Your task to perform on an android device: delete browsing data in the chrome app Image 0: 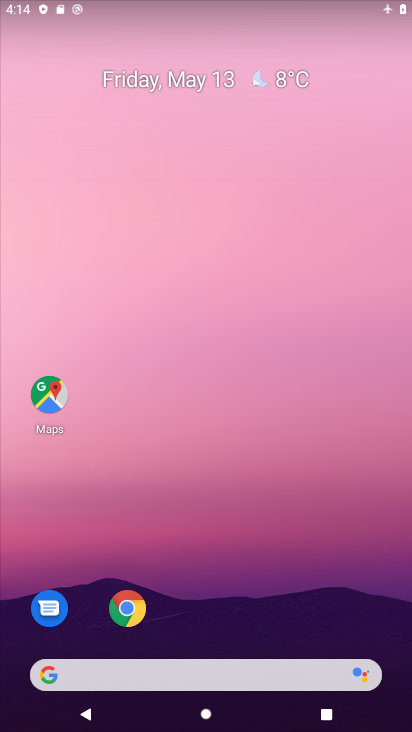
Step 0: click (126, 608)
Your task to perform on an android device: delete browsing data in the chrome app Image 1: 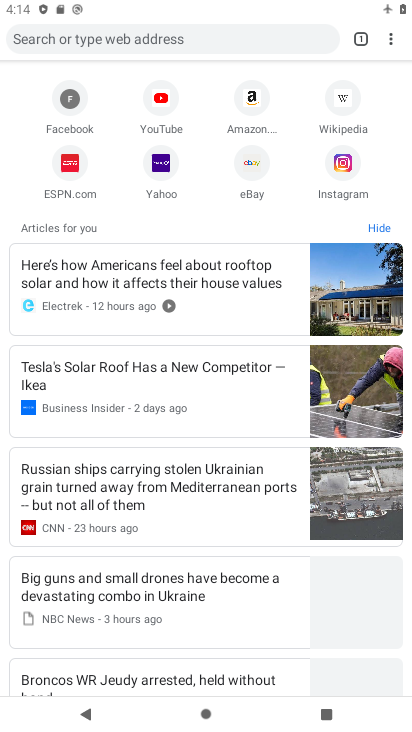
Step 1: click (390, 41)
Your task to perform on an android device: delete browsing data in the chrome app Image 2: 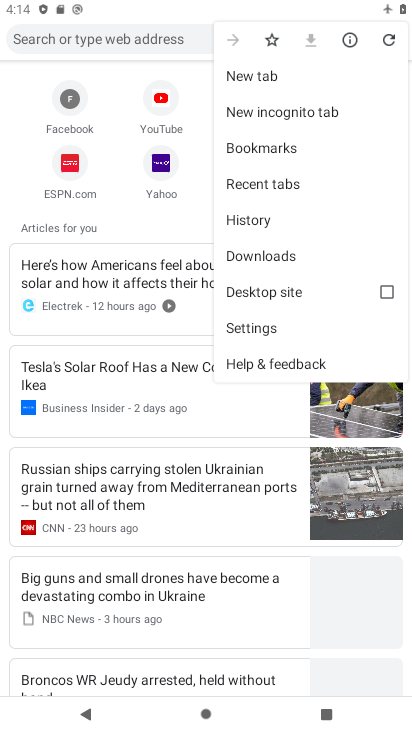
Step 2: click (259, 326)
Your task to perform on an android device: delete browsing data in the chrome app Image 3: 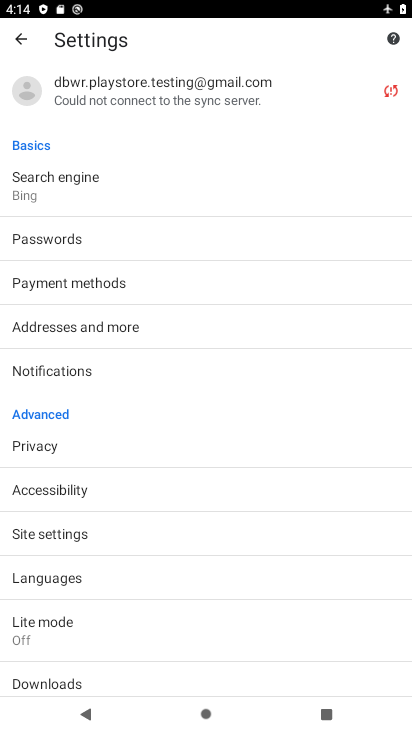
Step 3: click (45, 444)
Your task to perform on an android device: delete browsing data in the chrome app Image 4: 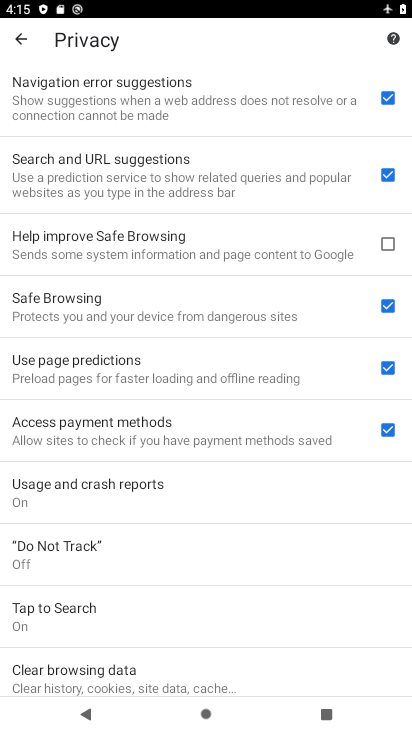
Step 4: drag from (161, 608) to (171, 537)
Your task to perform on an android device: delete browsing data in the chrome app Image 5: 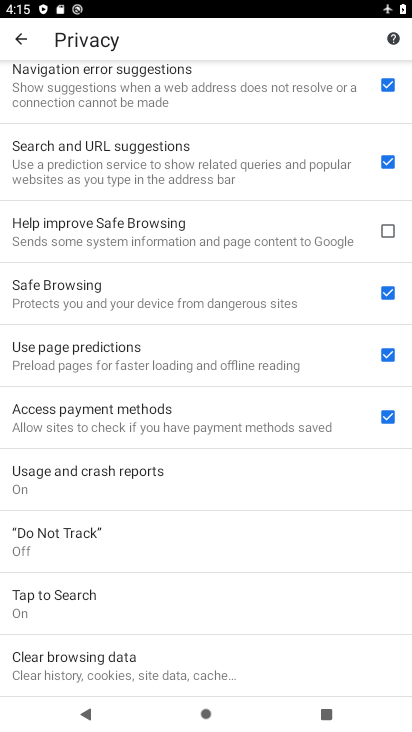
Step 5: click (73, 660)
Your task to perform on an android device: delete browsing data in the chrome app Image 6: 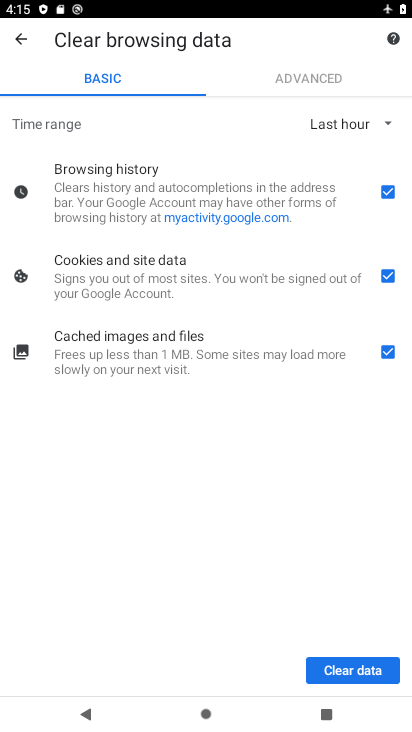
Step 6: click (353, 674)
Your task to perform on an android device: delete browsing data in the chrome app Image 7: 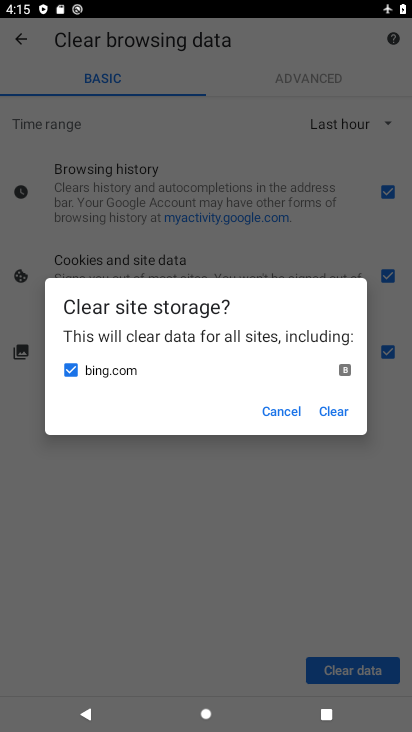
Step 7: click (335, 406)
Your task to perform on an android device: delete browsing data in the chrome app Image 8: 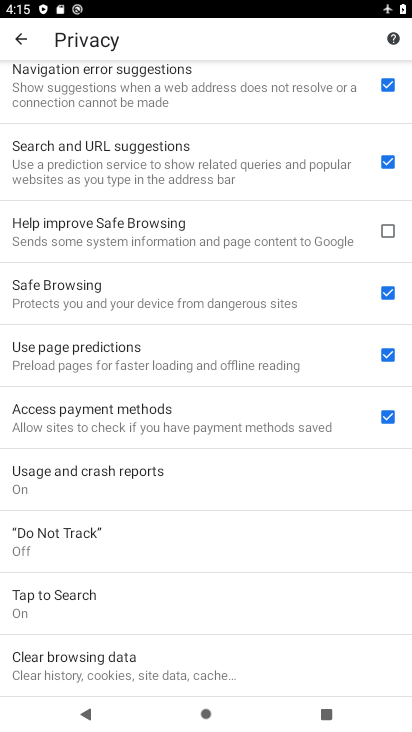
Step 8: task complete